Your task to perform on an android device: Open maps Image 0: 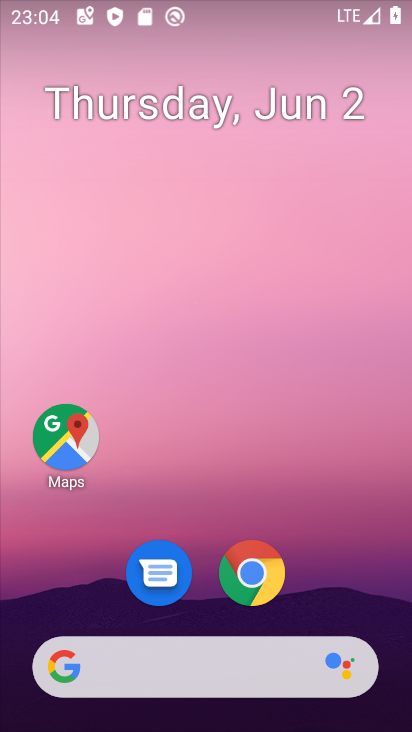
Step 0: click (78, 448)
Your task to perform on an android device: Open maps Image 1: 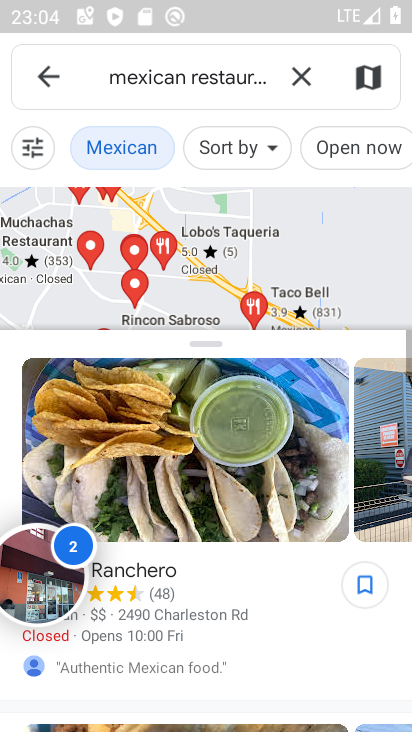
Step 1: task complete